Your task to perform on an android device: set the timer Image 0: 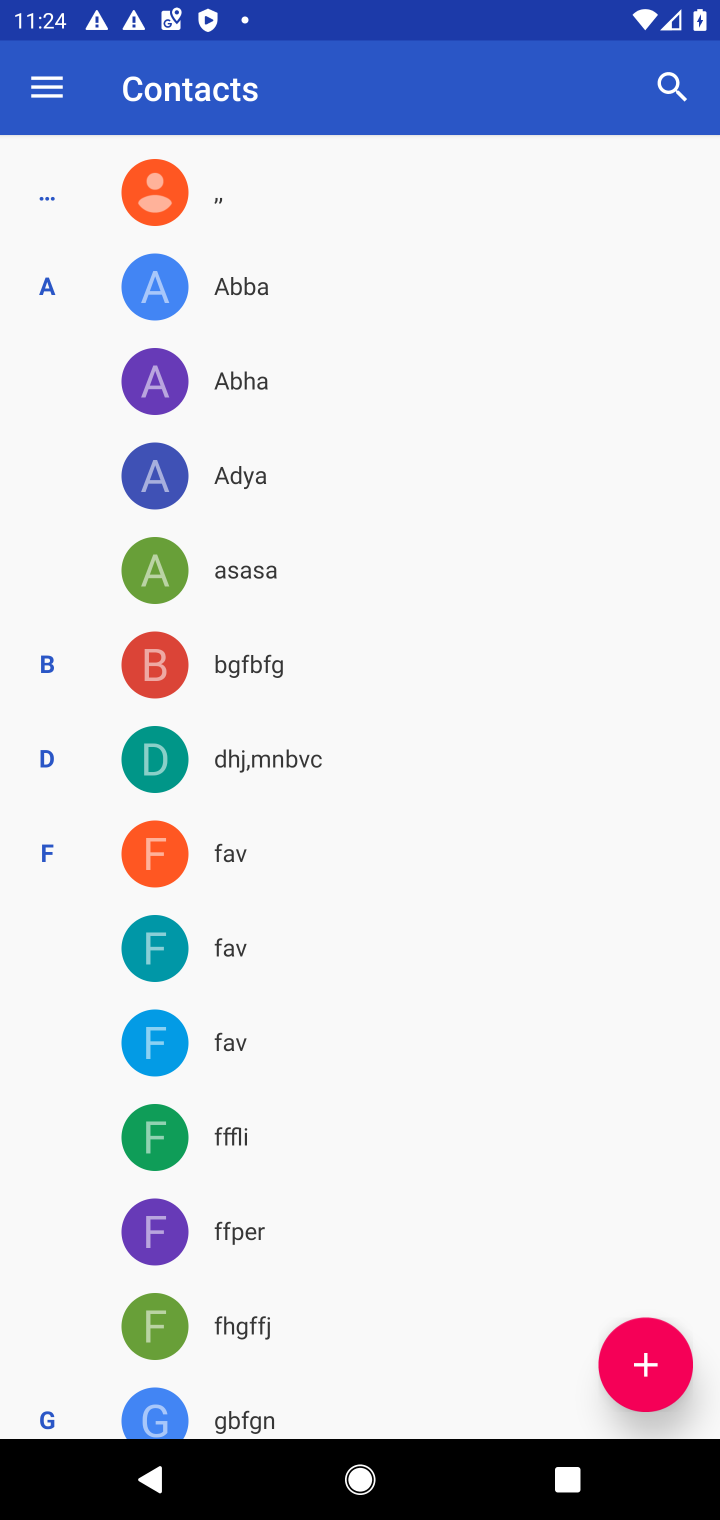
Step 0: press home button
Your task to perform on an android device: set the timer Image 1: 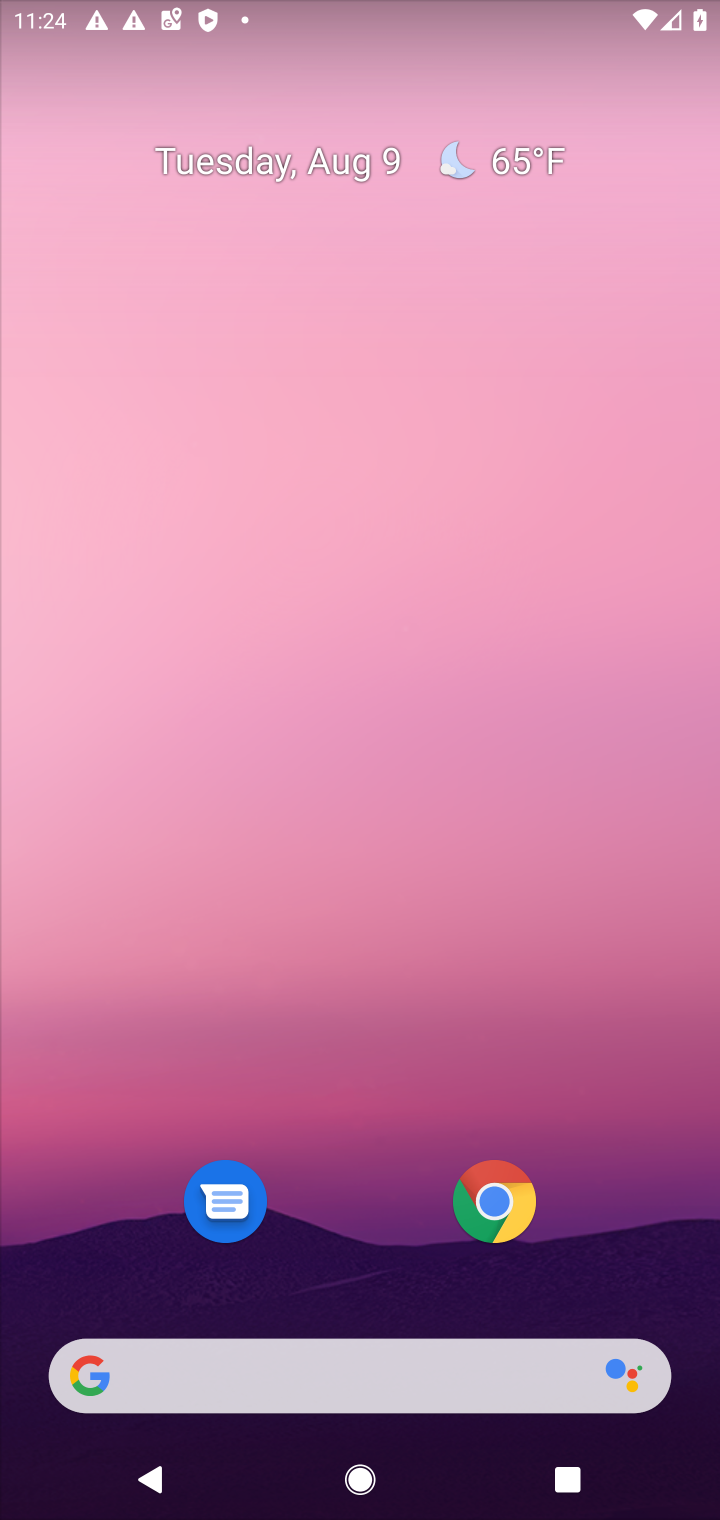
Step 1: drag from (367, 1204) to (375, 74)
Your task to perform on an android device: set the timer Image 2: 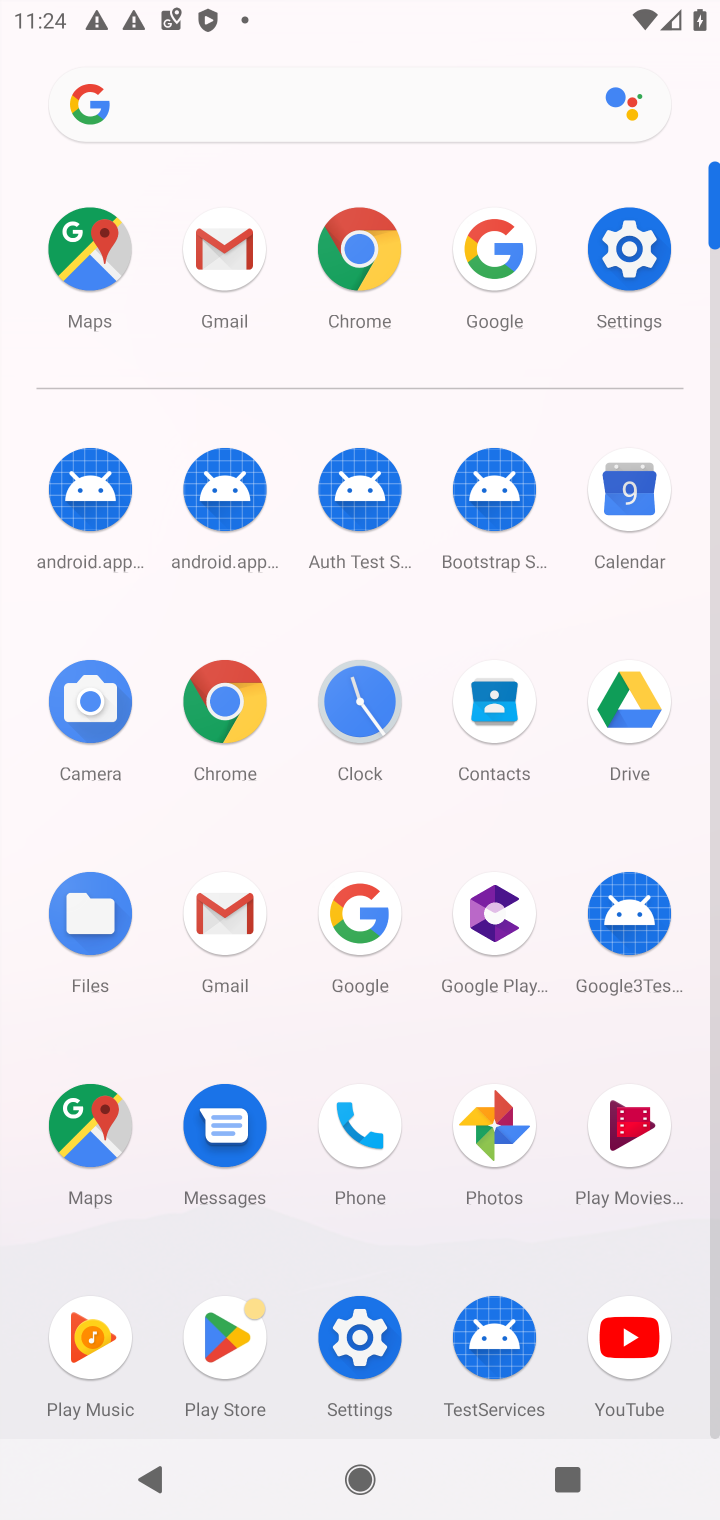
Step 2: click (350, 693)
Your task to perform on an android device: set the timer Image 3: 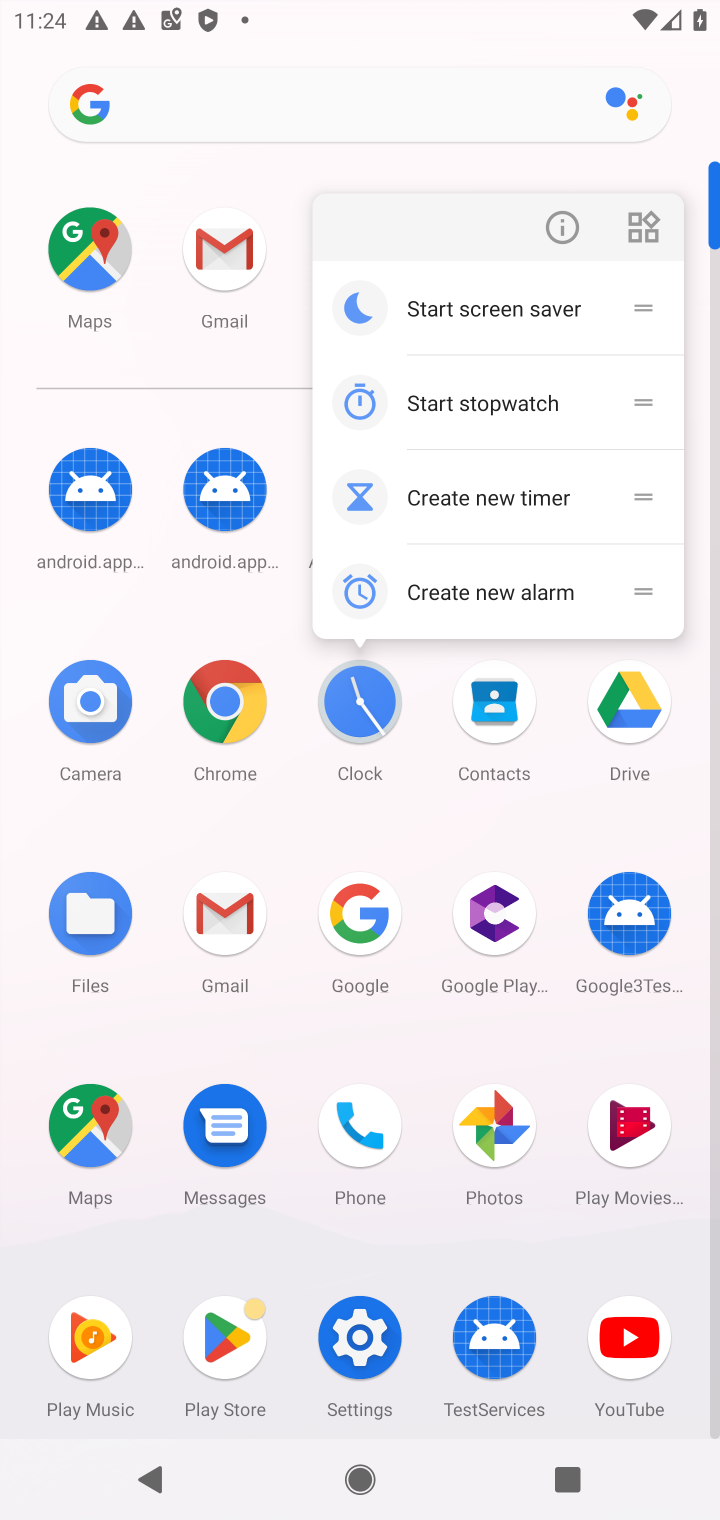
Step 3: click (347, 700)
Your task to perform on an android device: set the timer Image 4: 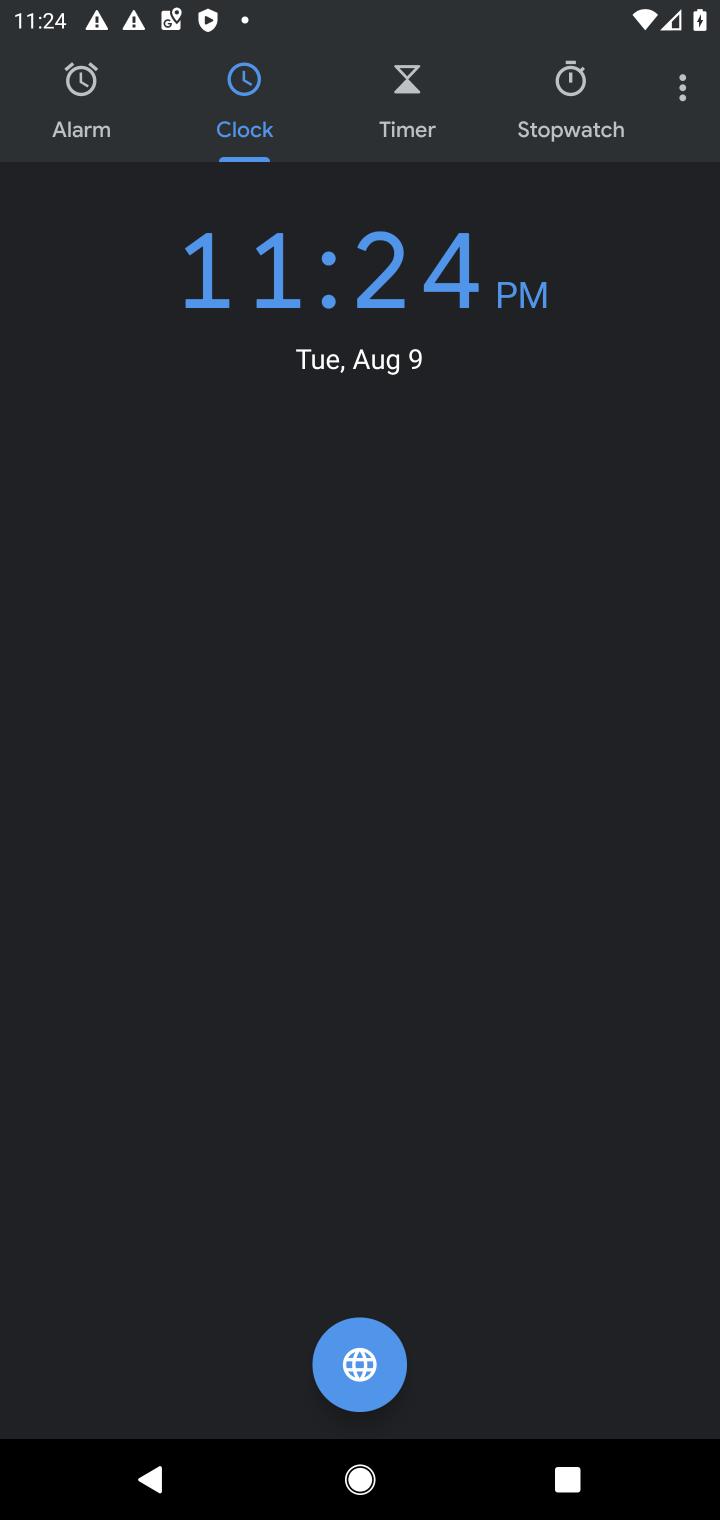
Step 4: click (420, 93)
Your task to perform on an android device: set the timer Image 5: 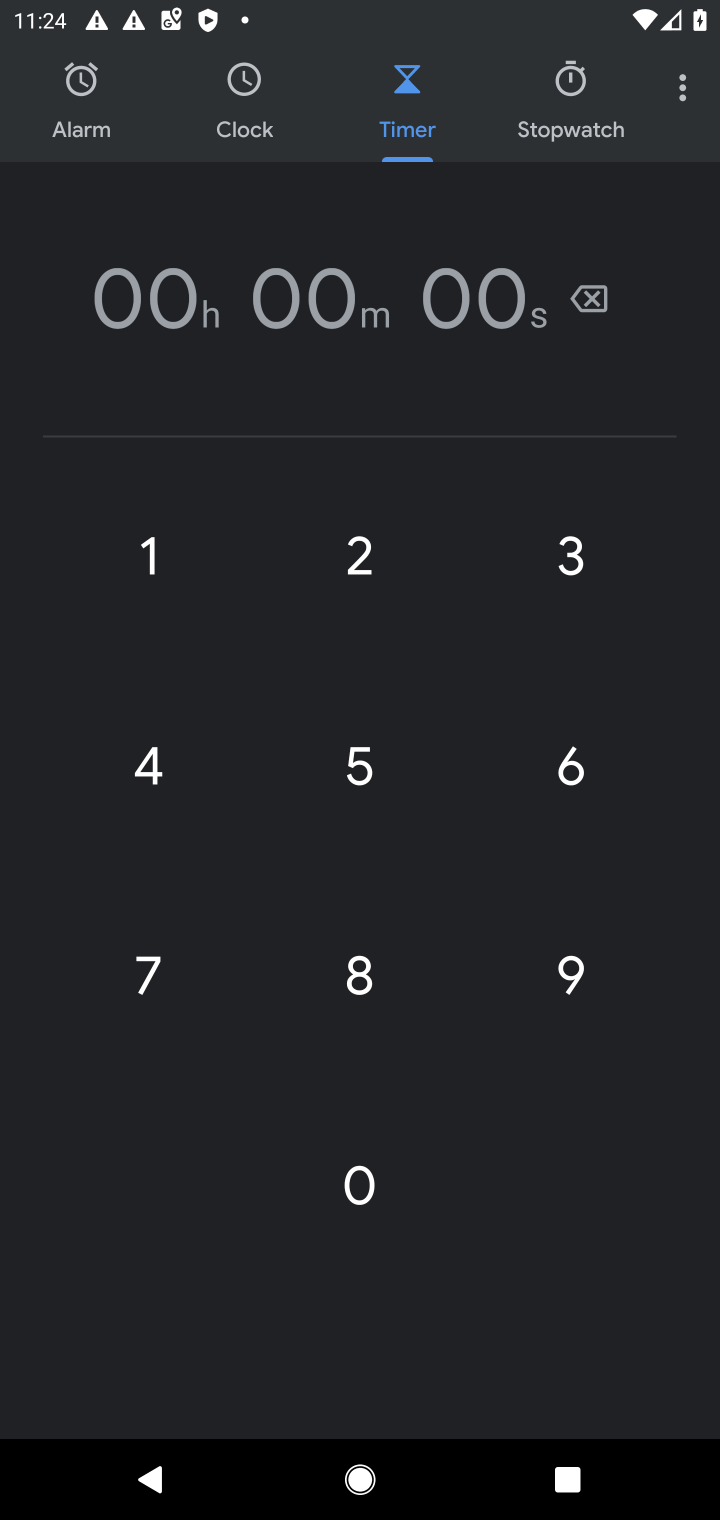
Step 5: click (363, 761)
Your task to perform on an android device: set the timer Image 6: 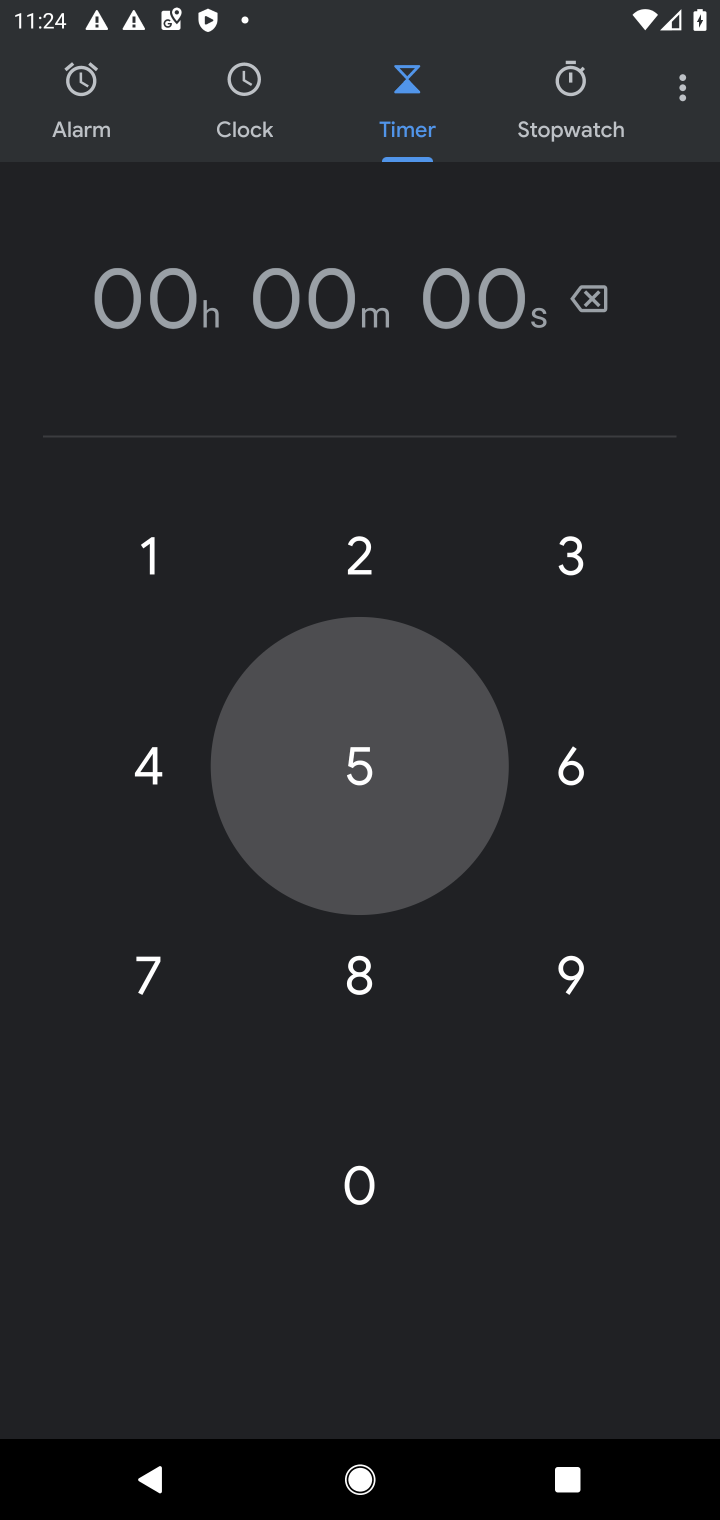
Step 6: click (363, 761)
Your task to perform on an android device: set the timer Image 7: 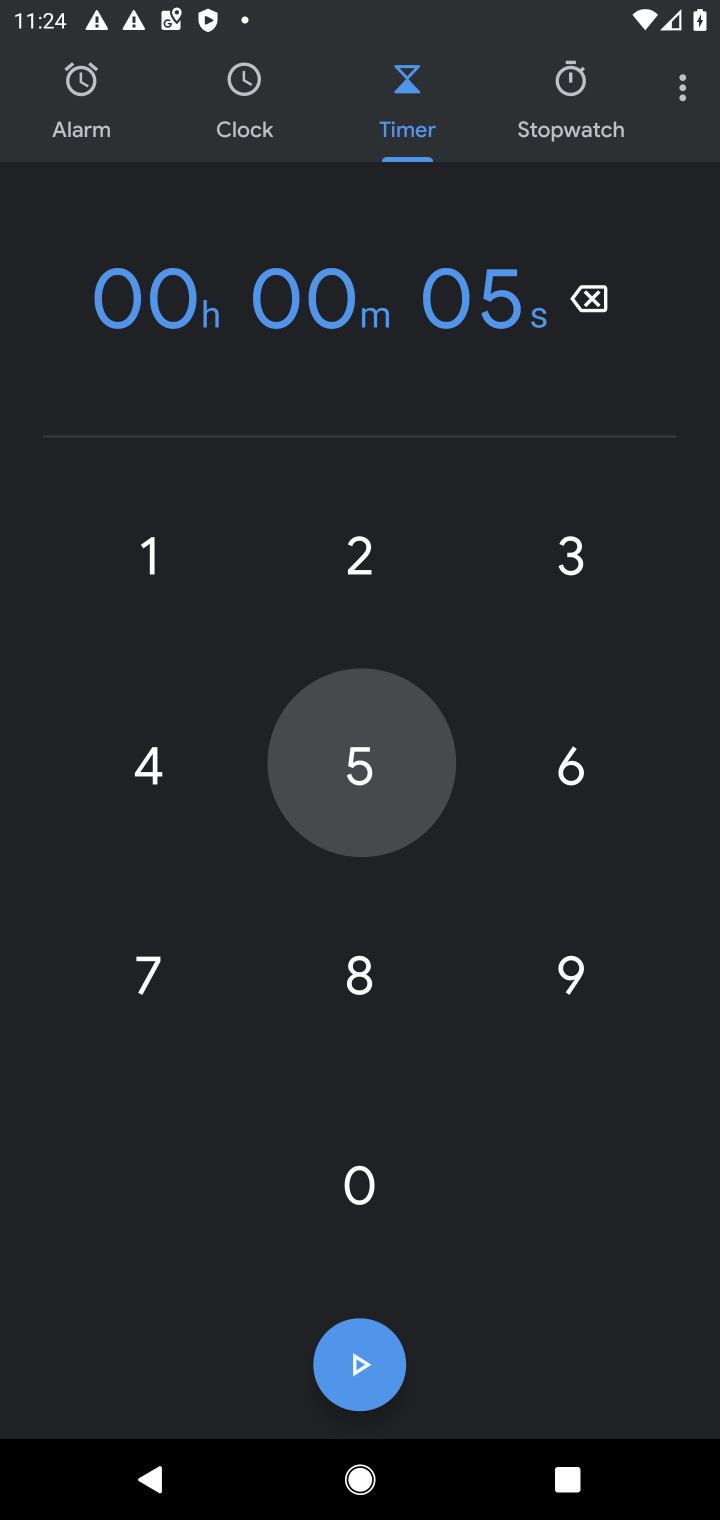
Step 7: click (344, 556)
Your task to perform on an android device: set the timer Image 8: 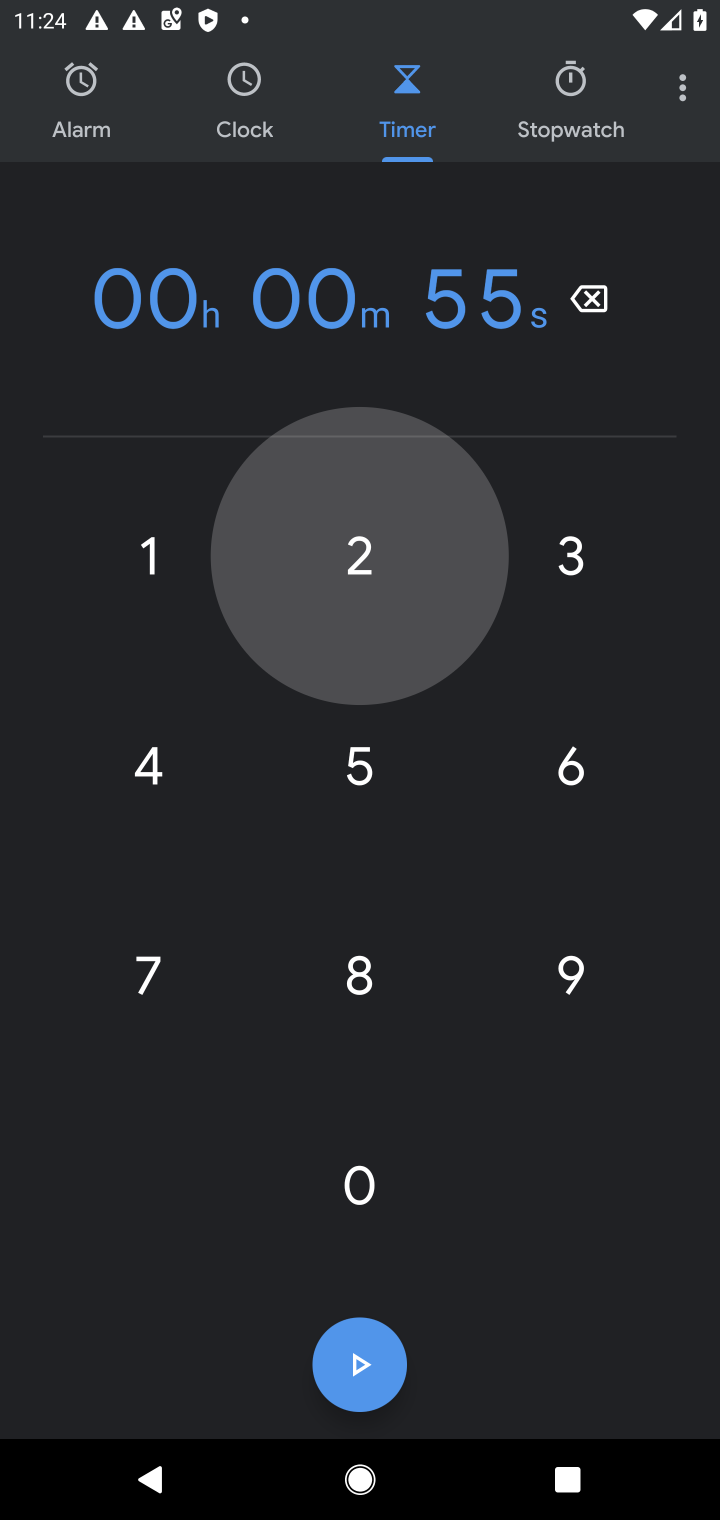
Step 8: click (352, 541)
Your task to perform on an android device: set the timer Image 9: 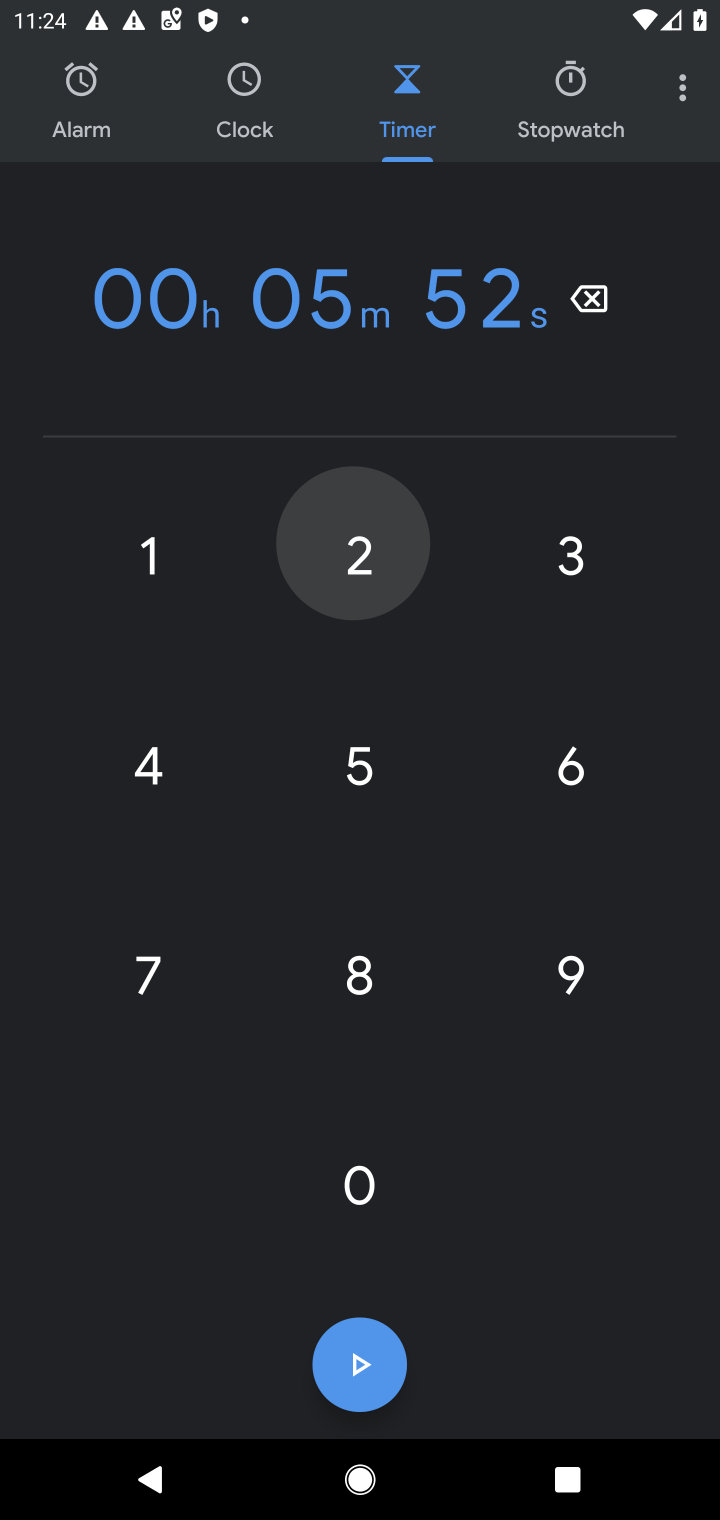
Step 9: click (352, 541)
Your task to perform on an android device: set the timer Image 10: 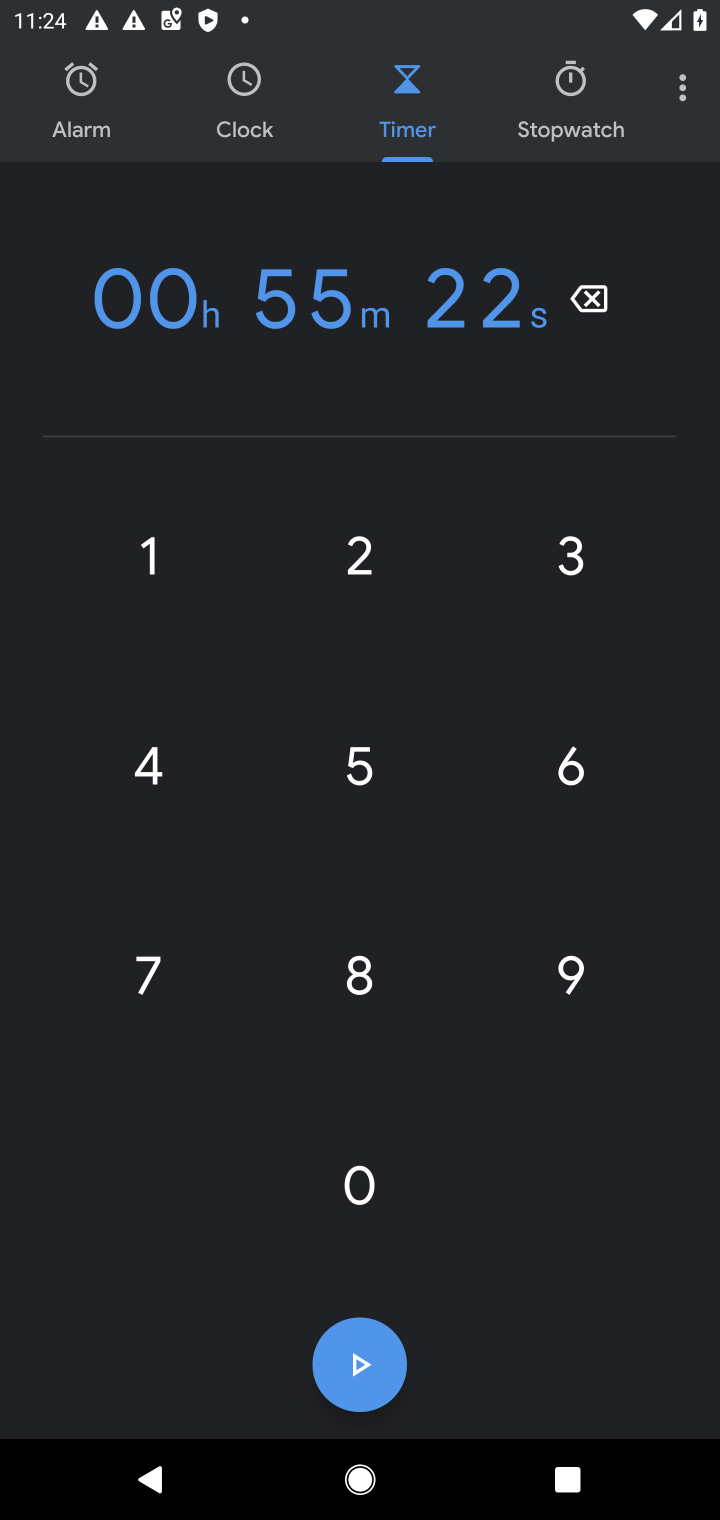
Step 10: click (352, 541)
Your task to perform on an android device: set the timer Image 11: 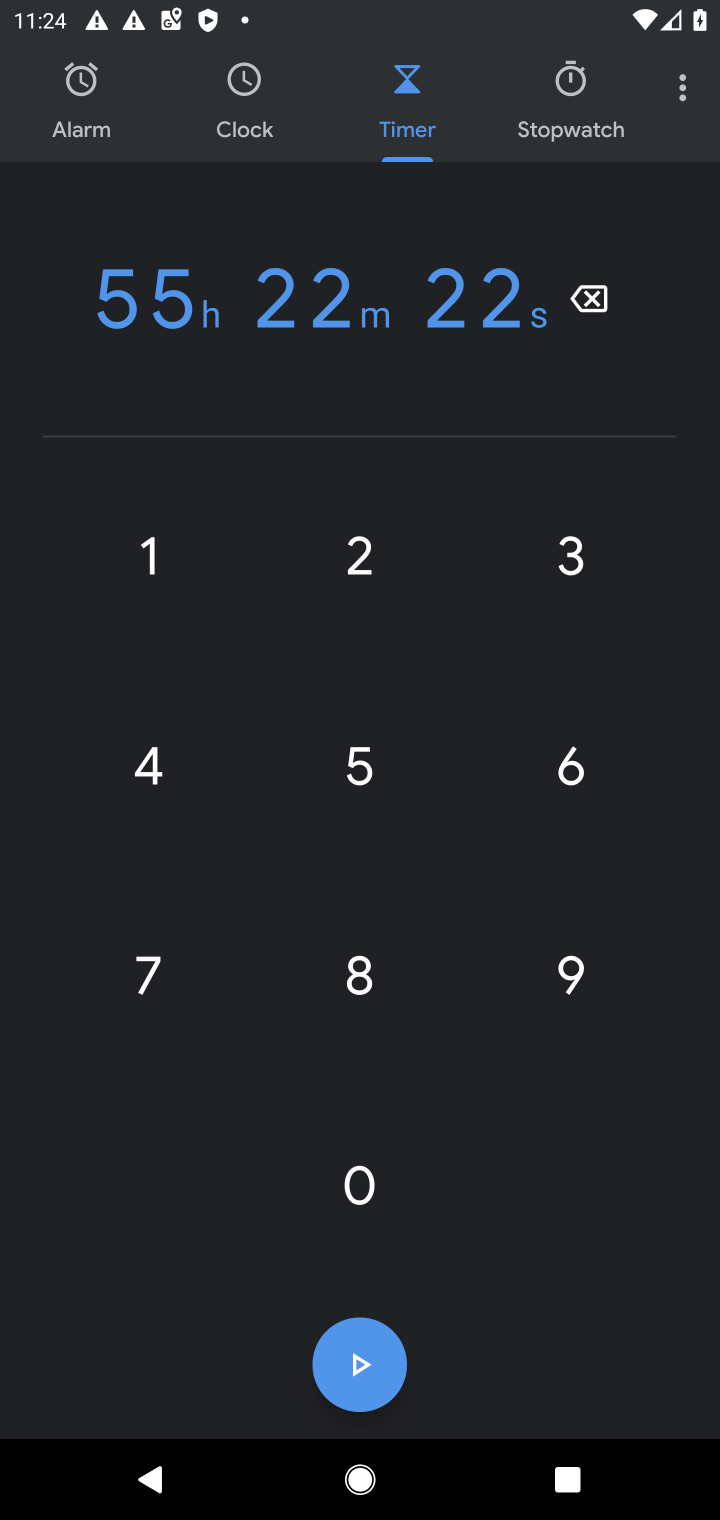
Step 11: click (331, 1354)
Your task to perform on an android device: set the timer Image 12: 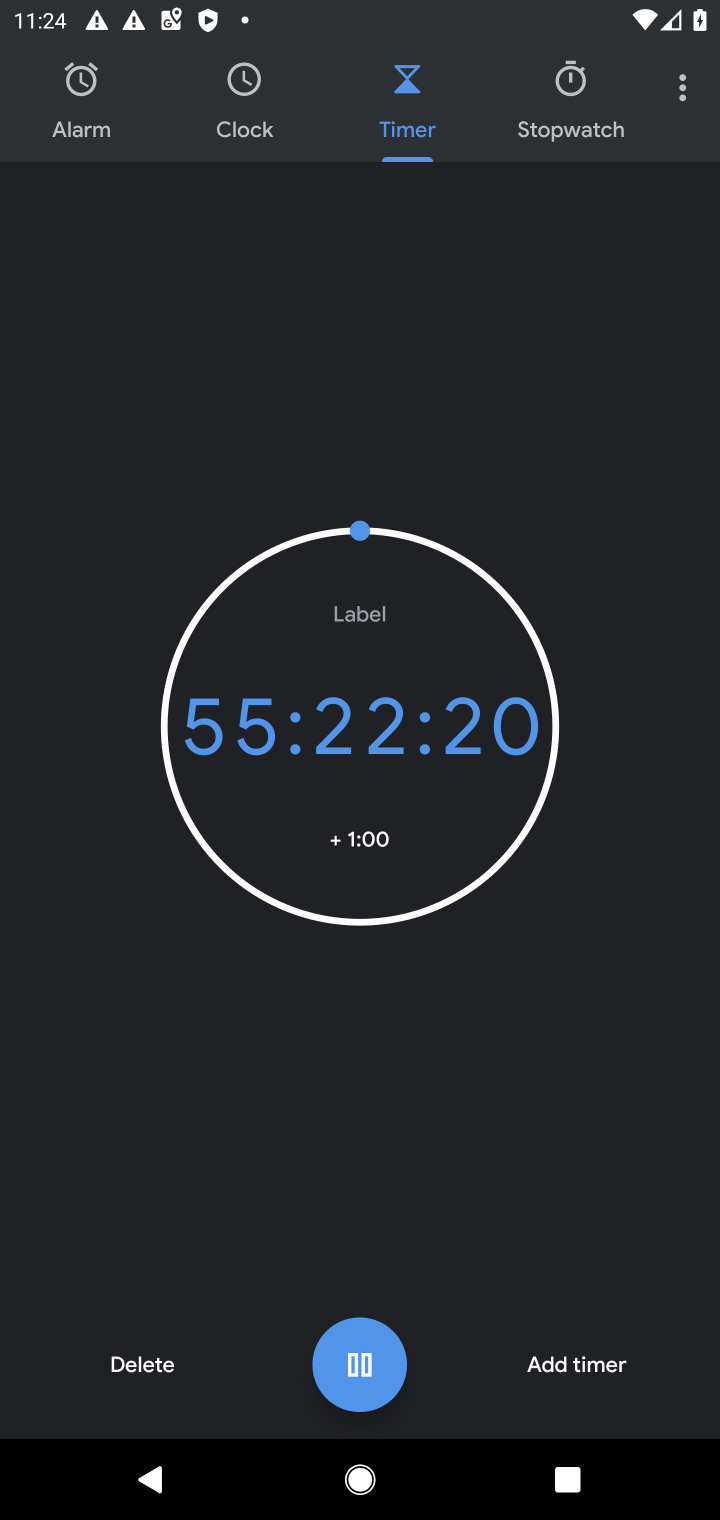
Step 12: click (363, 1357)
Your task to perform on an android device: set the timer Image 13: 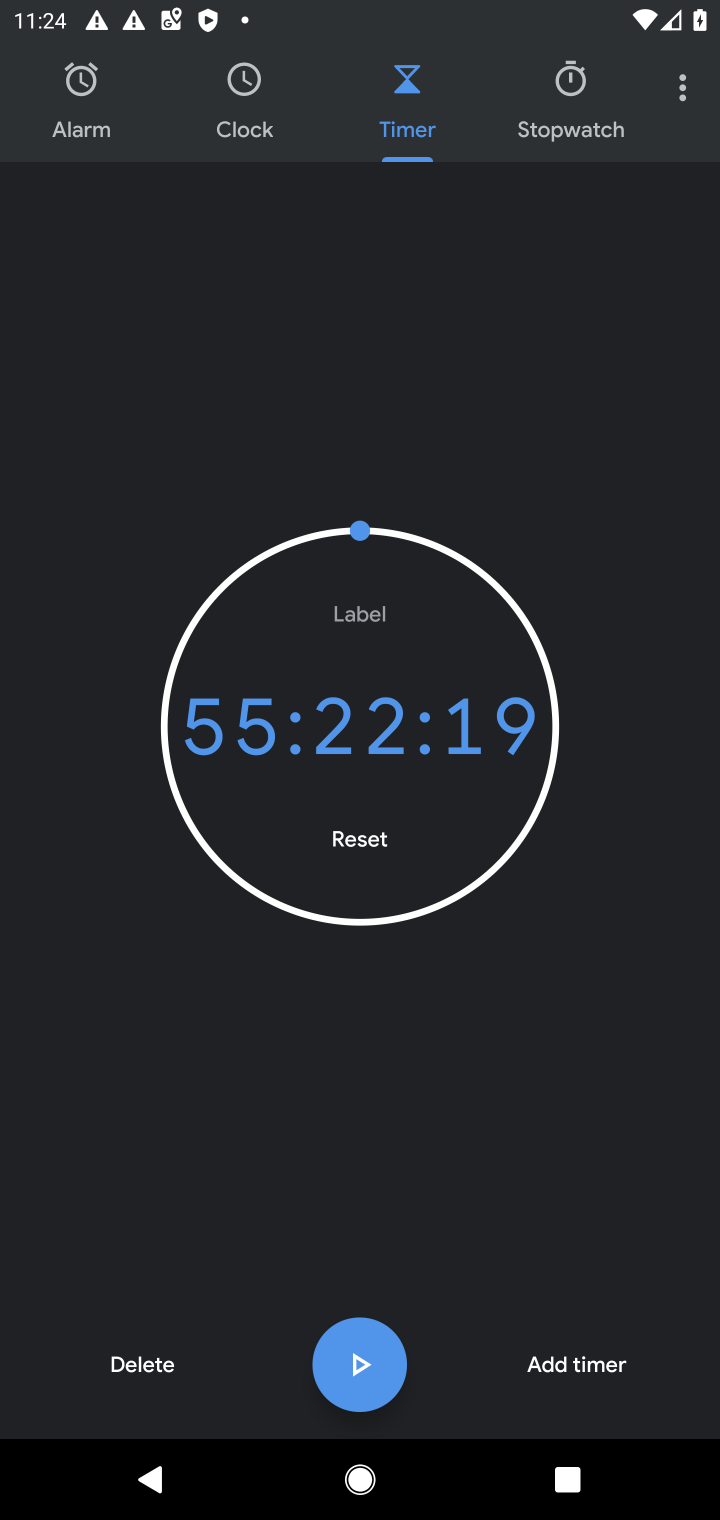
Step 13: task complete